Your task to perform on an android device: View the shopping cart on target.com. Search for razer naga on target.com, select the first entry, and add it to the cart. Image 0: 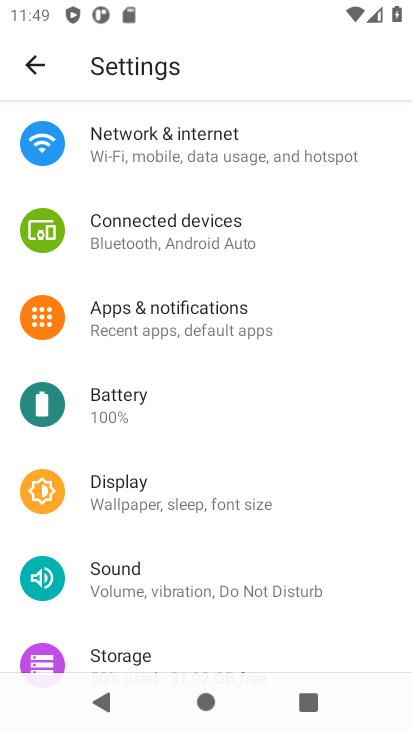
Step 0: press home button
Your task to perform on an android device: View the shopping cart on target.com. Search for razer naga on target.com, select the first entry, and add it to the cart. Image 1: 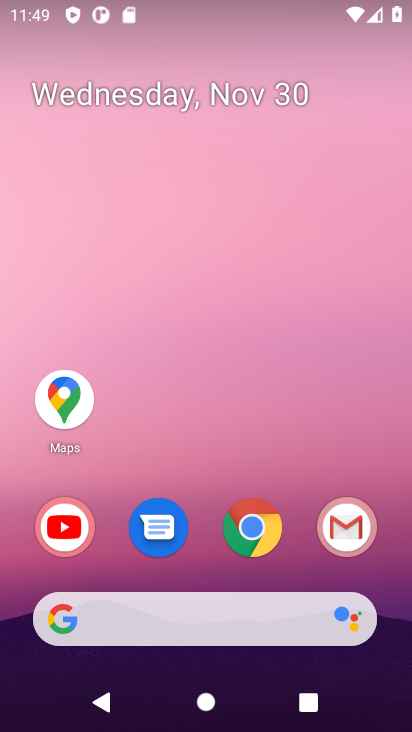
Step 1: click (251, 543)
Your task to perform on an android device: View the shopping cart on target.com. Search for razer naga on target.com, select the first entry, and add it to the cart. Image 2: 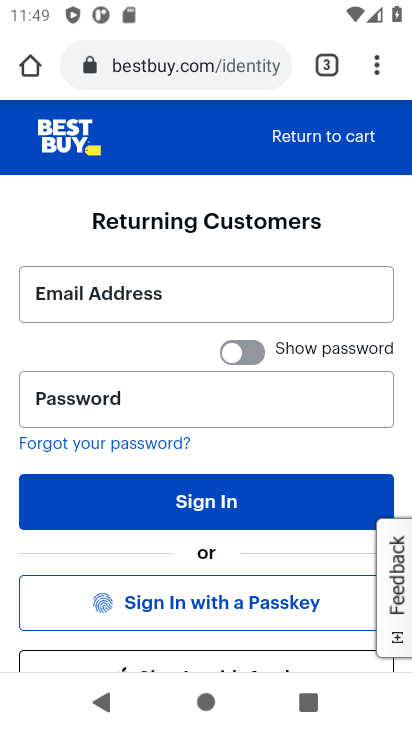
Step 2: click (171, 74)
Your task to perform on an android device: View the shopping cart on target.com. Search for razer naga on target.com, select the first entry, and add it to the cart. Image 3: 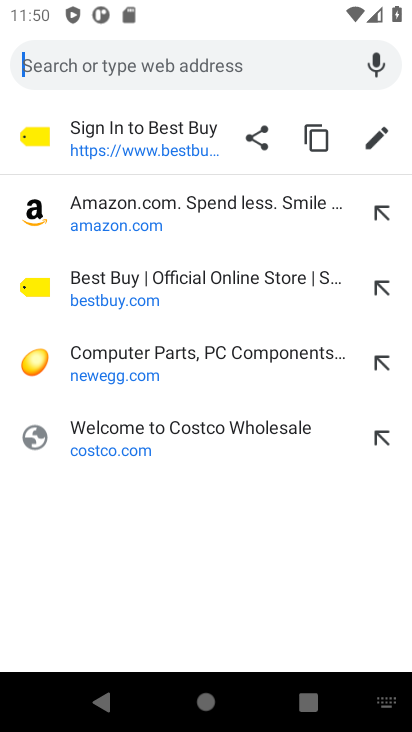
Step 3: type "target.com"
Your task to perform on an android device: View the shopping cart on target.com. Search for razer naga on target.com, select the first entry, and add it to the cart. Image 4: 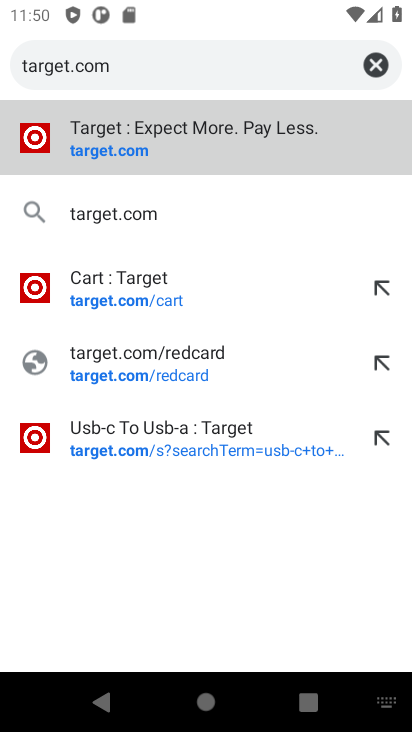
Step 4: click (127, 160)
Your task to perform on an android device: View the shopping cart on target.com. Search for razer naga on target.com, select the first entry, and add it to the cart. Image 5: 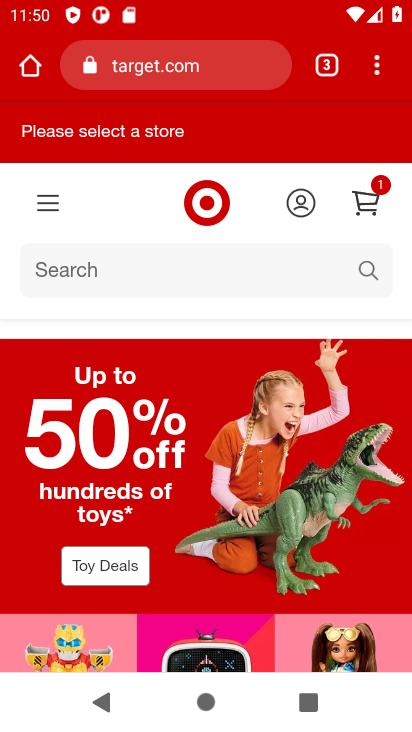
Step 5: click (369, 211)
Your task to perform on an android device: View the shopping cart on target.com. Search for razer naga on target.com, select the first entry, and add it to the cart. Image 6: 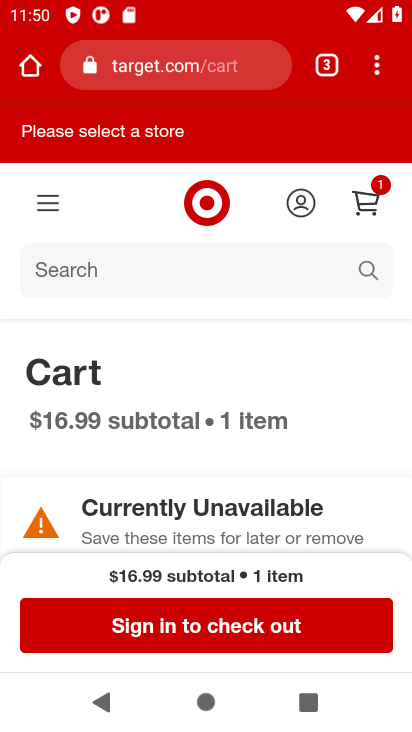
Step 6: drag from (321, 496) to (356, 251)
Your task to perform on an android device: View the shopping cart on target.com. Search for razer naga on target.com, select the first entry, and add it to the cart. Image 7: 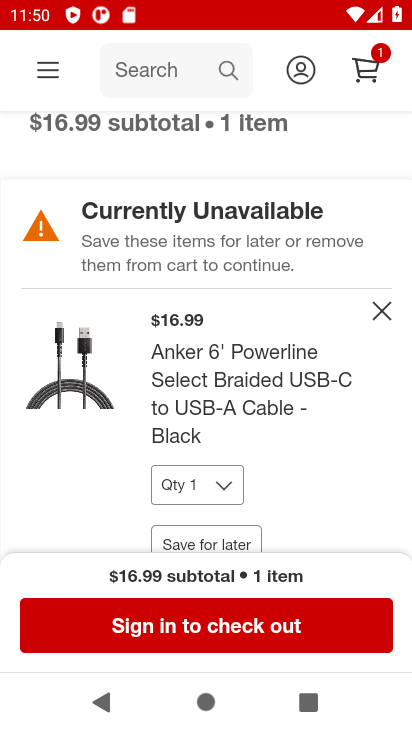
Step 7: click (133, 69)
Your task to perform on an android device: View the shopping cart on target.com. Search for razer naga on target.com, select the first entry, and add it to the cart. Image 8: 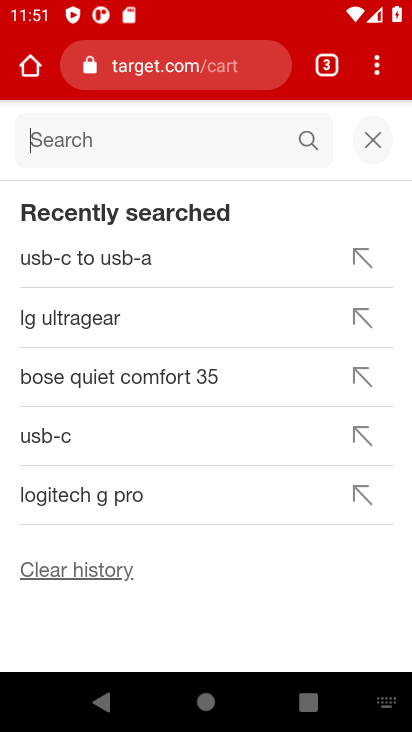
Step 8: type "razer naga"
Your task to perform on an android device: View the shopping cart on target.com. Search for razer naga on target.com, select the first entry, and add it to the cart. Image 9: 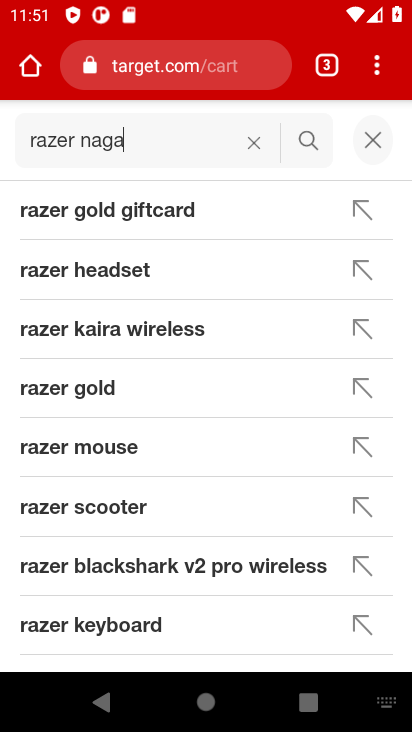
Step 9: click (303, 144)
Your task to perform on an android device: View the shopping cart on target.com. Search for razer naga on target.com, select the first entry, and add it to the cart. Image 10: 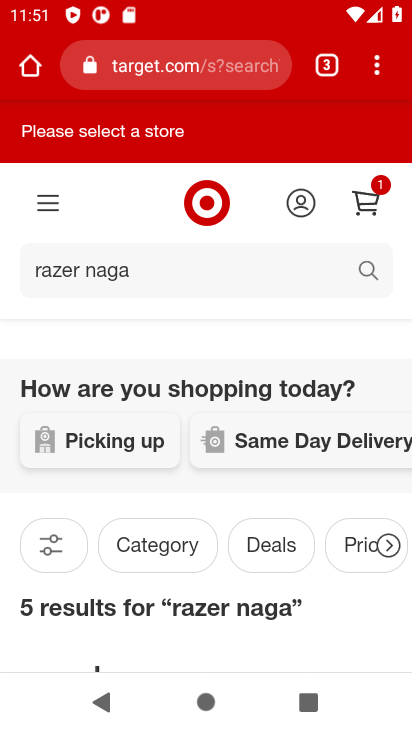
Step 10: task complete